Your task to perform on an android device: What's the weather? Image 0: 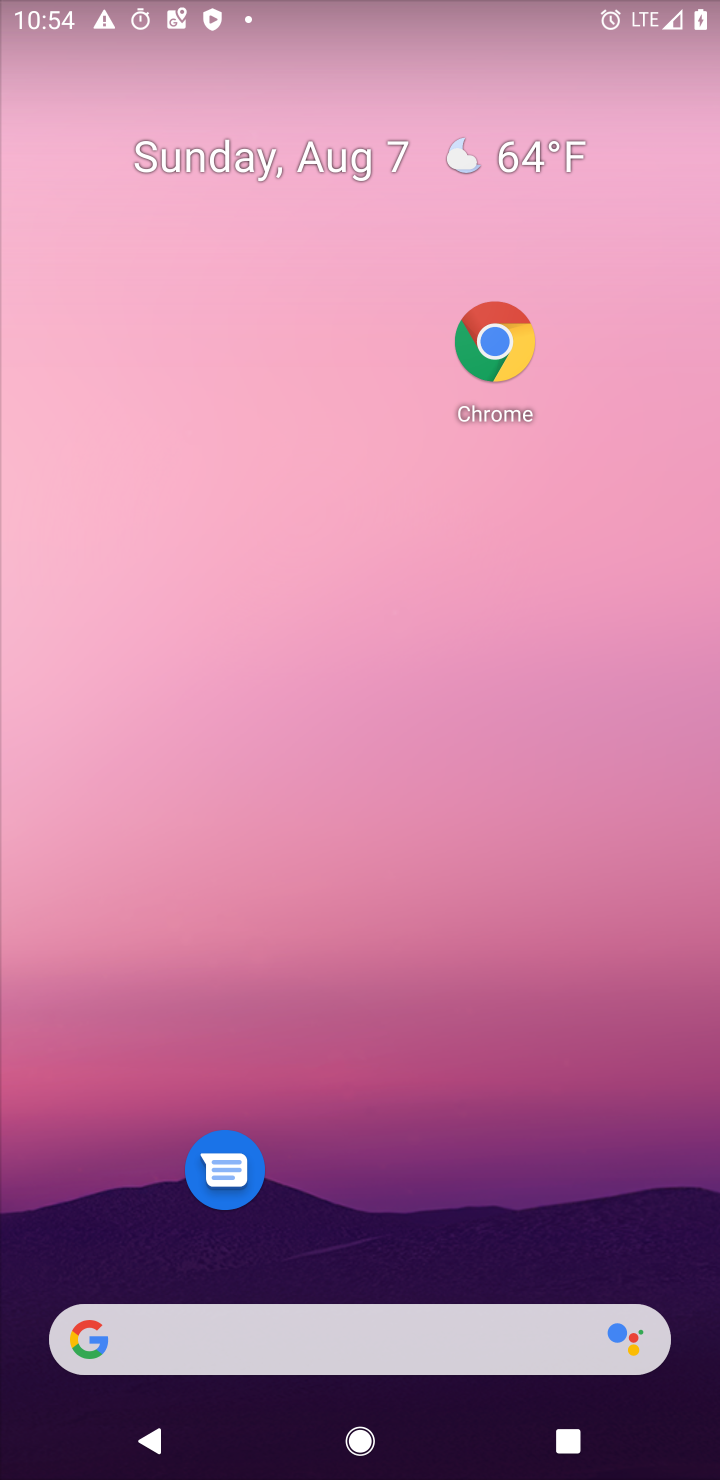
Step 0: drag from (532, 1337) to (373, 191)
Your task to perform on an android device: What's the weather? Image 1: 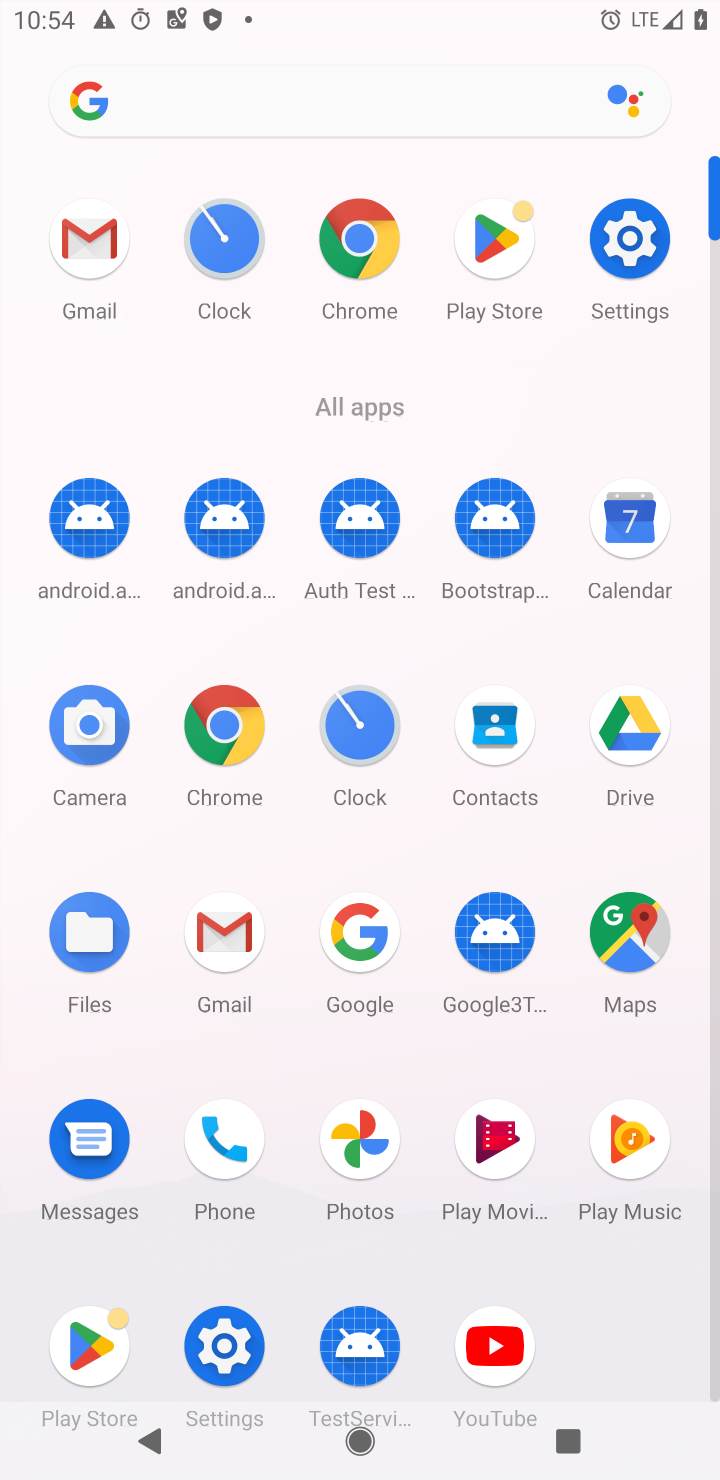
Step 1: click (203, 746)
Your task to perform on an android device: What's the weather? Image 2: 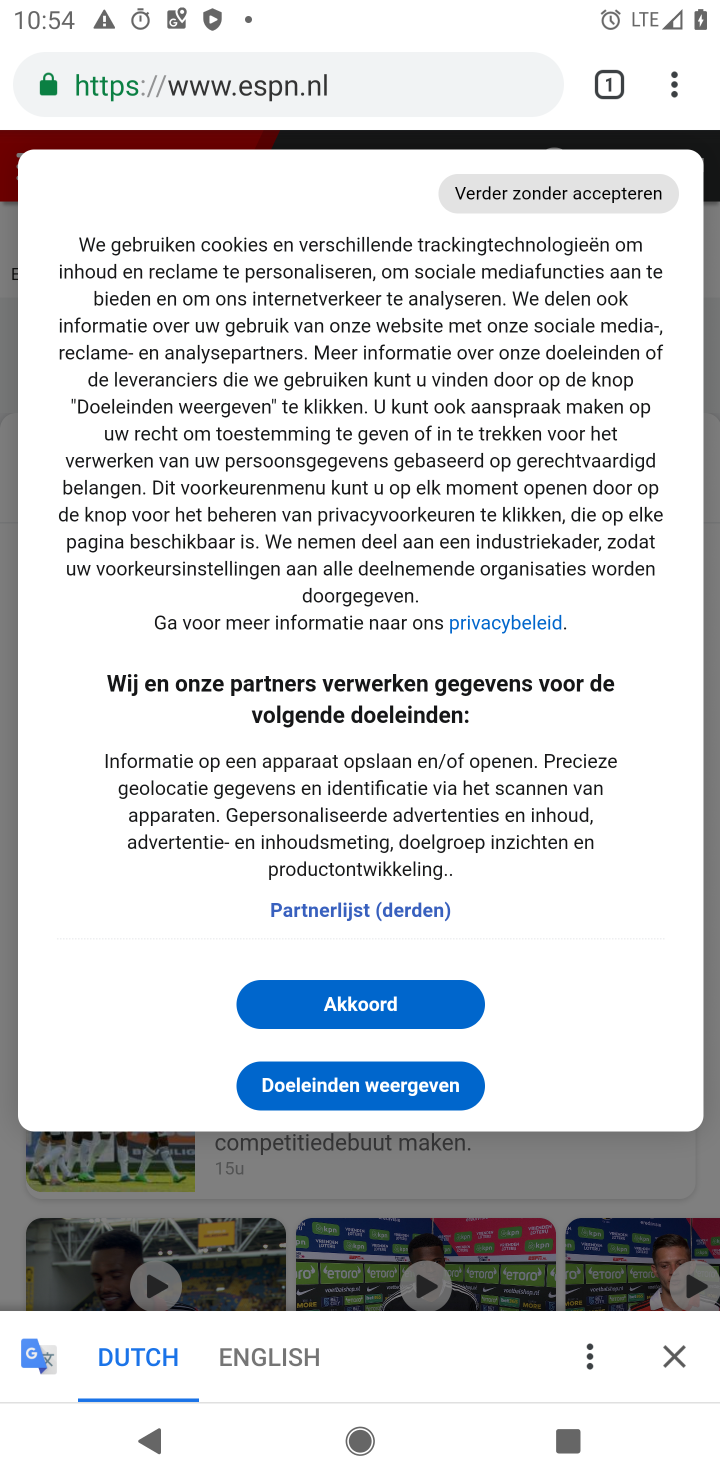
Step 2: click (243, 95)
Your task to perform on an android device: What's the weather? Image 3: 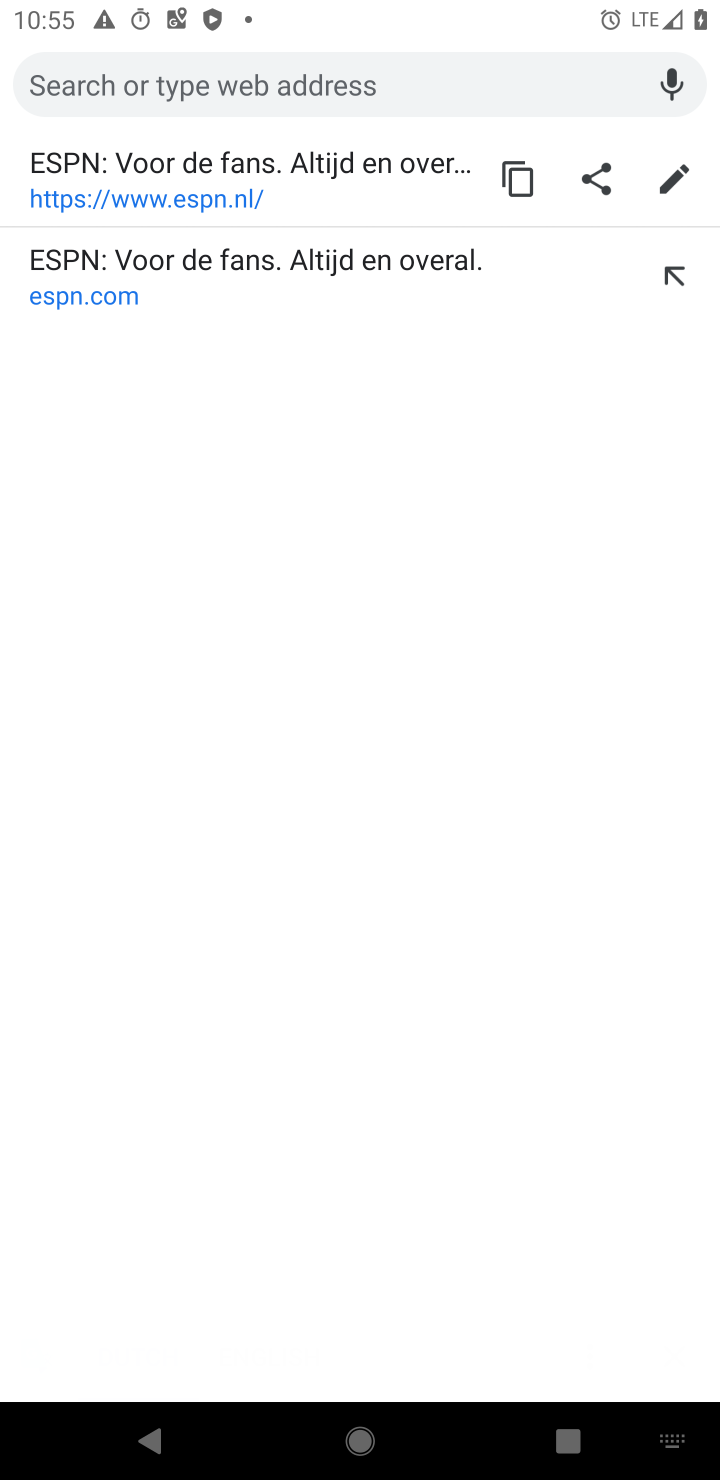
Step 3: type "whats the weather"
Your task to perform on an android device: What's the weather? Image 4: 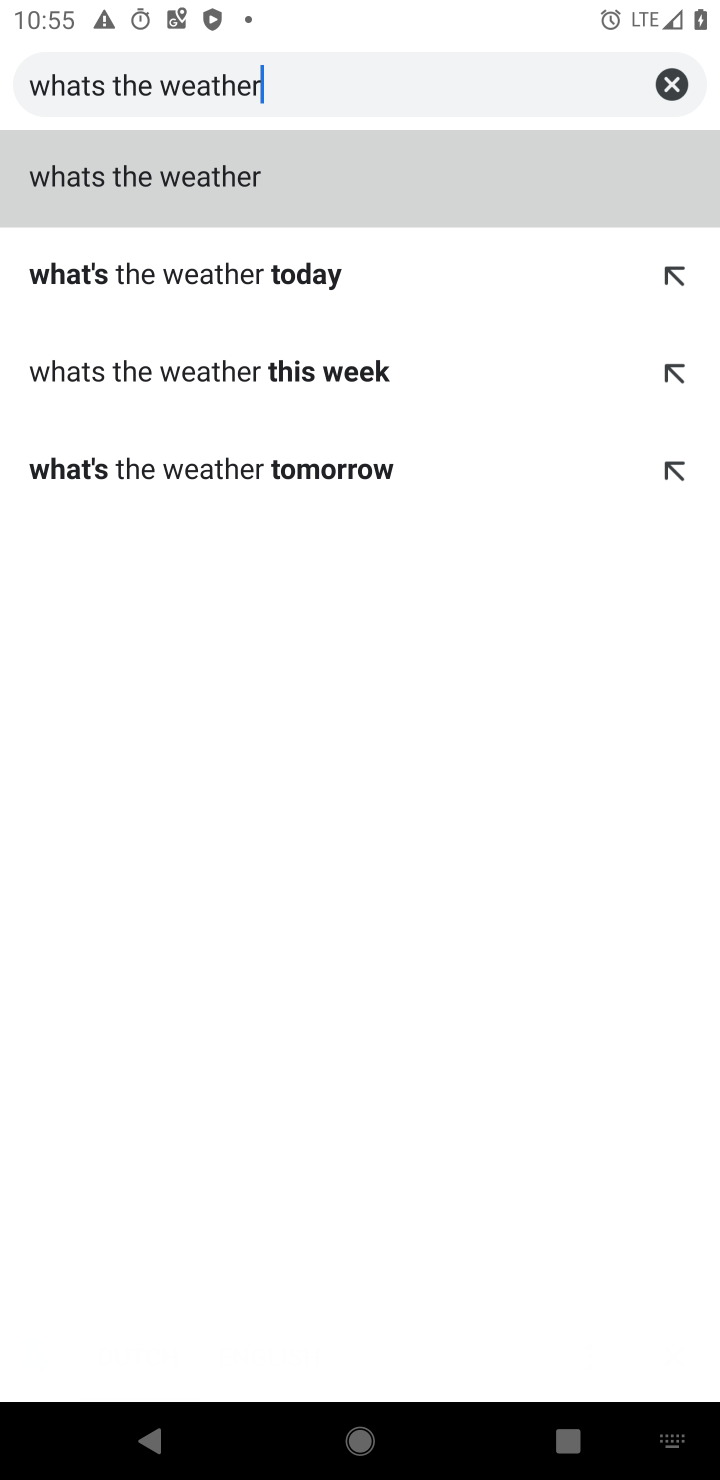
Step 4: click (184, 161)
Your task to perform on an android device: What's the weather? Image 5: 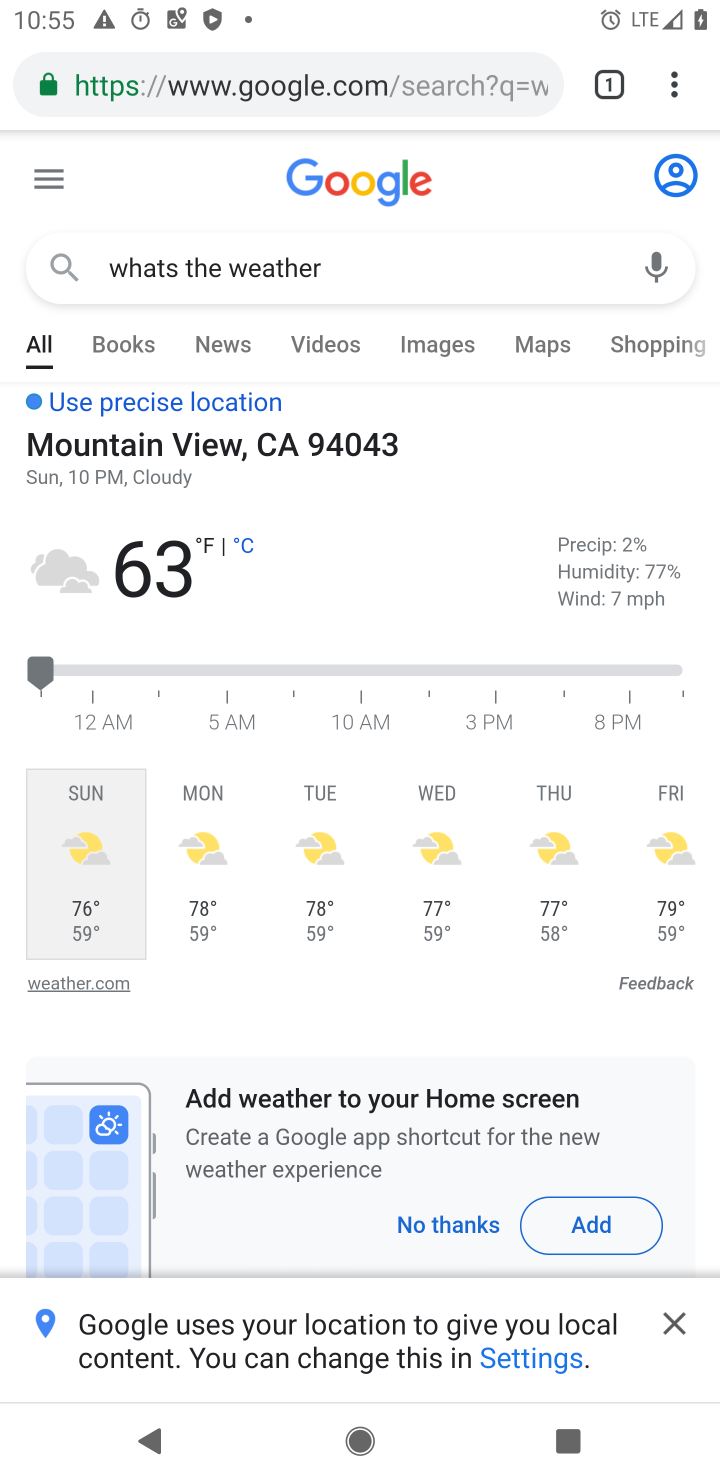
Step 5: task complete